Your task to perform on an android device: turn on airplane mode Image 0: 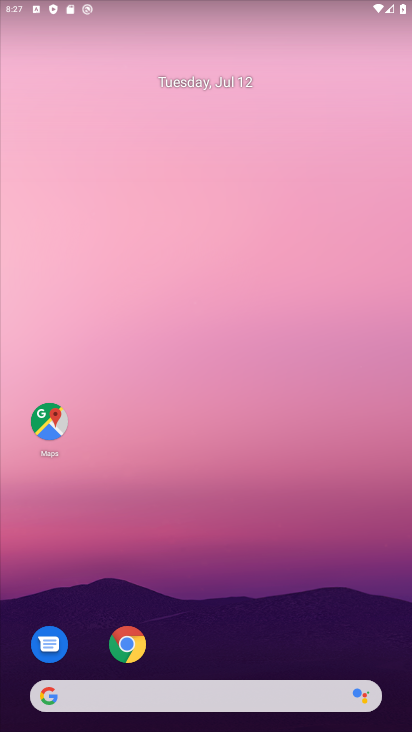
Step 0: drag from (388, 636) to (321, 125)
Your task to perform on an android device: turn on airplane mode Image 1: 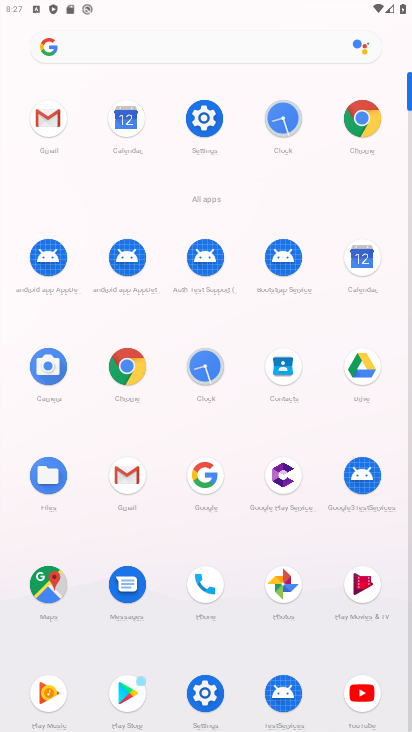
Step 1: click (207, 694)
Your task to perform on an android device: turn on airplane mode Image 2: 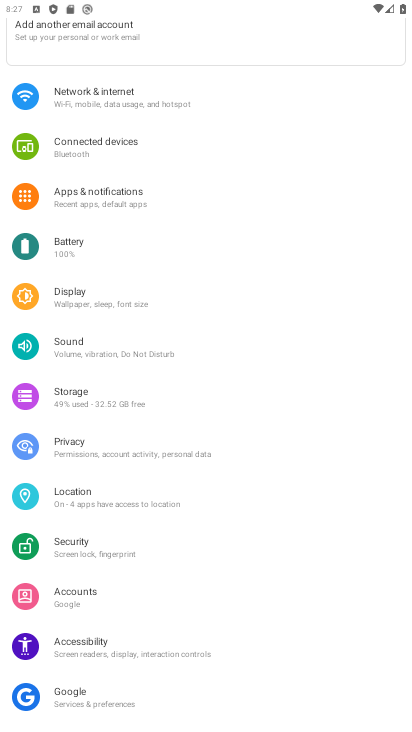
Step 2: click (80, 98)
Your task to perform on an android device: turn on airplane mode Image 3: 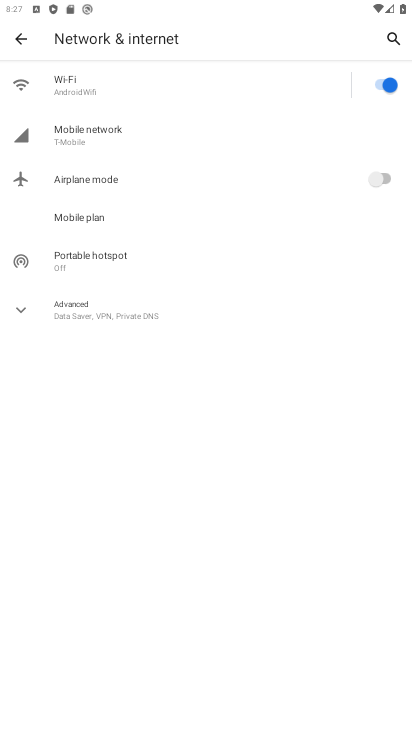
Step 3: click (382, 178)
Your task to perform on an android device: turn on airplane mode Image 4: 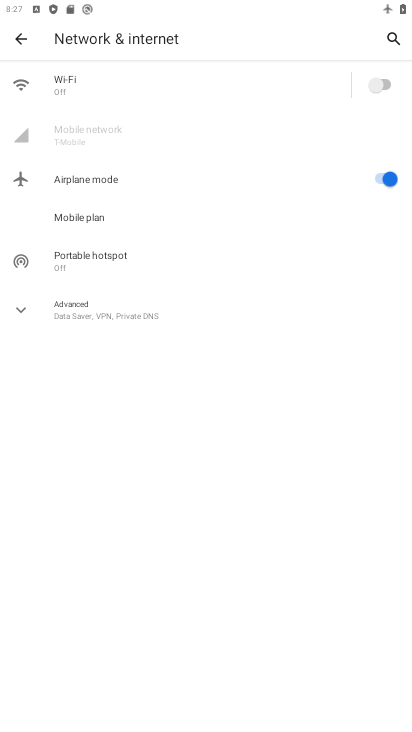
Step 4: task complete